Your task to perform on an android device: change the clock display to show seconds Image 0: 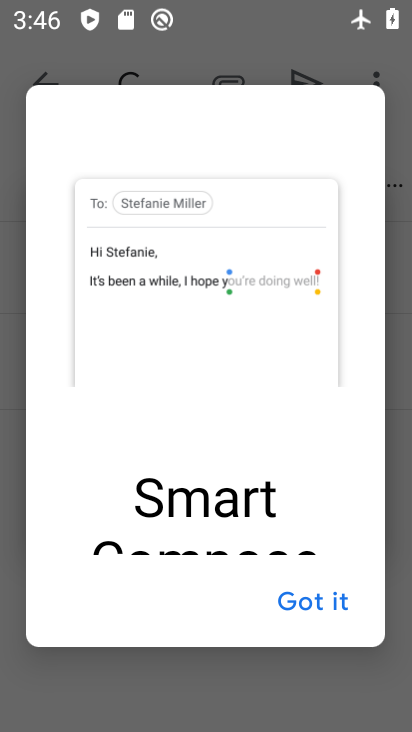
Step 0: press back button
Your task to perform on an android device: change the clock display to show seconds Image 1: 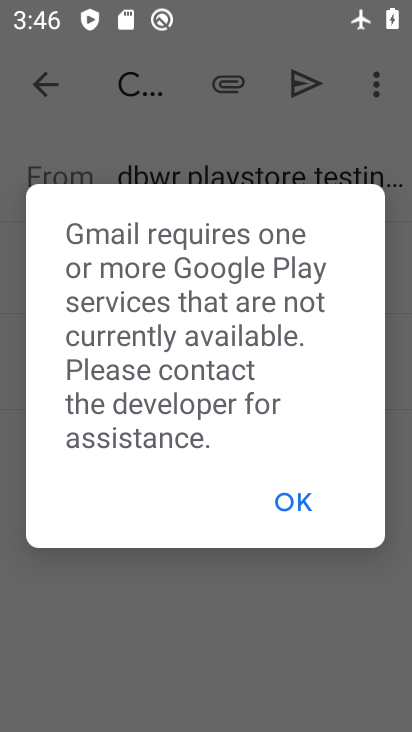
Step 1: press home button
Your task to perform on an android device: change the clock display to show seconds Image 2: 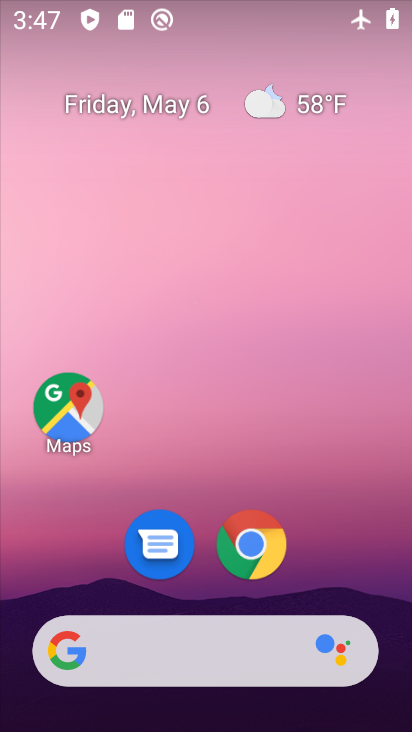
Step 2: drag from (67, 631) to (275, 58)
Your task to perform on an android device: change the clock display to show seconds Image 3: 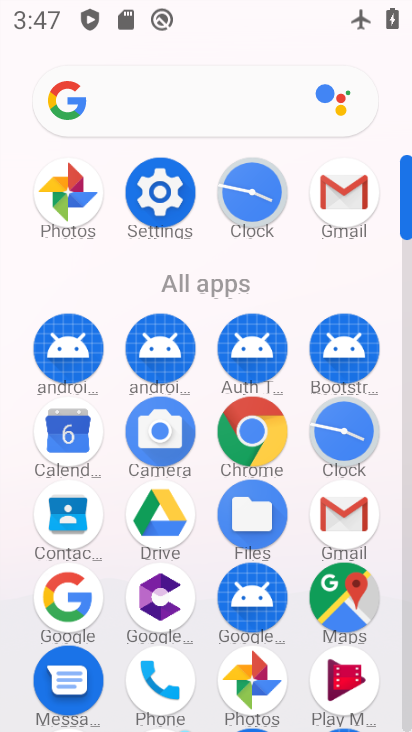
Step 3: click (358, 437)
Your task to perform on an android device: change the clock display to show seconds Image 4: 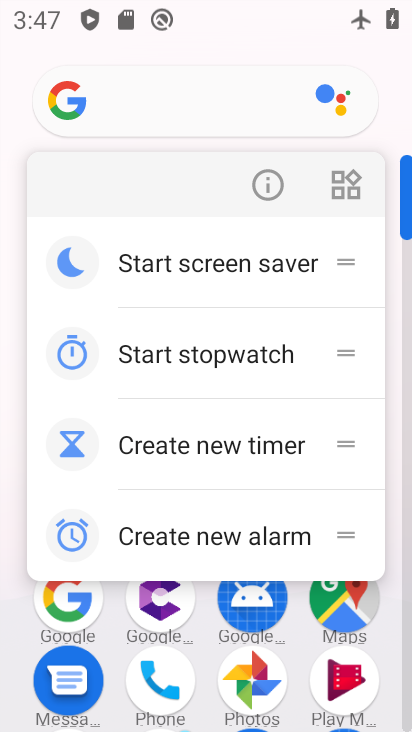
Step 4: press back button
Your task to perform on an android device: change the clock display to show seconds Image 5: 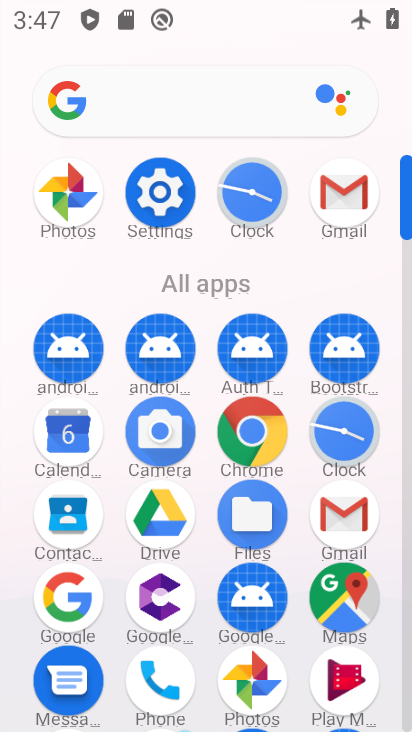
Step 5: click (352, 431)
Your task to perform on an android device: change the clock display to show seconds Image 6: 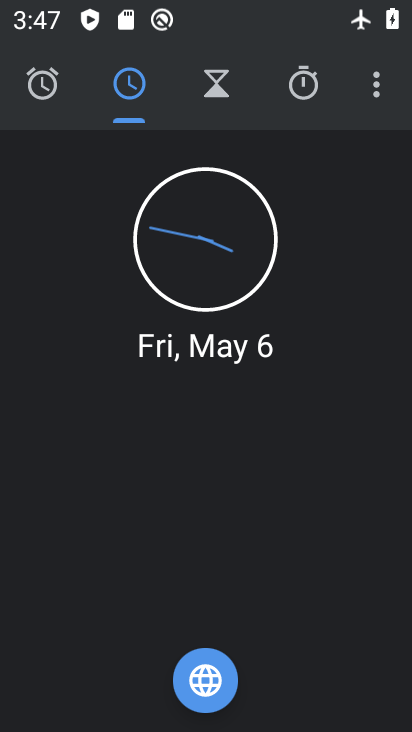
Step 6: click (390, 81)
Your task to perform on an android device: change the clock display to show seconds Image 7: 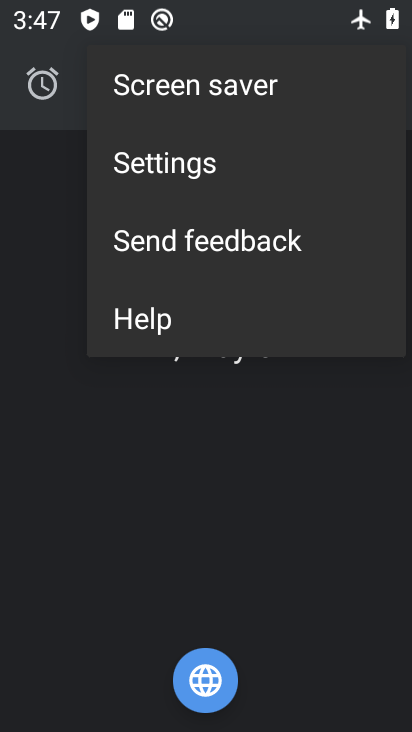
Step 7: click (256, 184)
Your task to perform on an android device: change the clock display to show seconds Image 8: 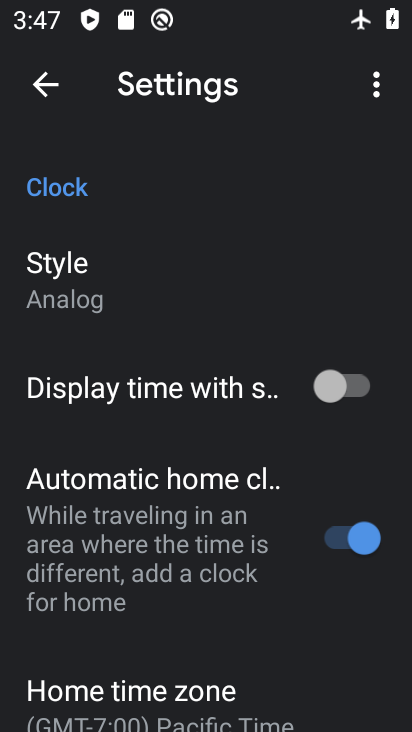
Step 8: click (374, 389)
Your task to perform on an android device: change the clock display to show seconds Image 9: 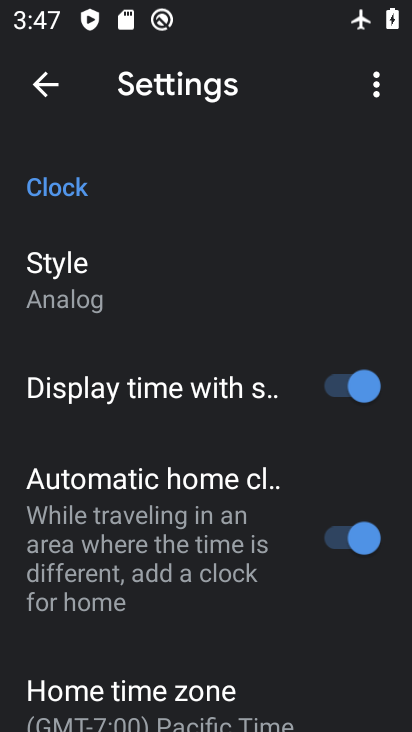
Step 9: task complete